Your task to perform on an android device: Go to Google maps Image 0: 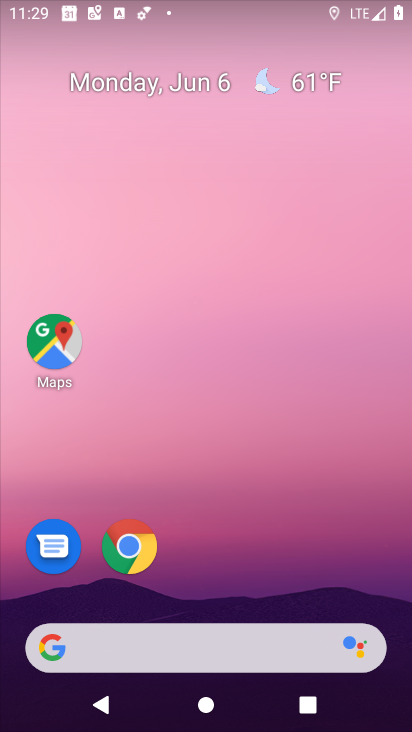
Step 0: click (54, 340)
Your task to perform on an android device: Go to Google maps Image 1: 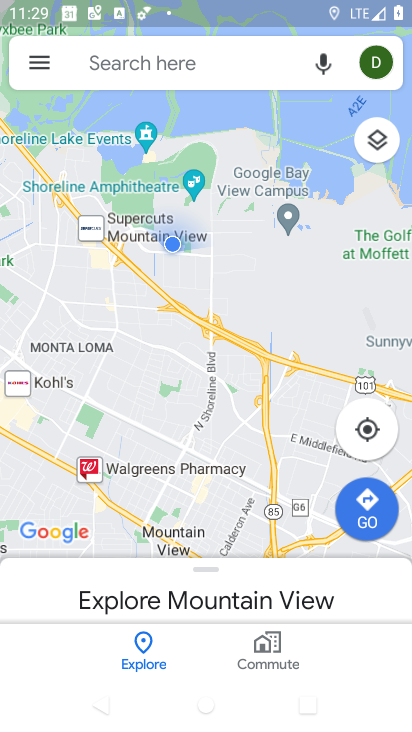
Step 1: task complete